Your task to perform on an android device: open the mobile data screen to see how much data has been used Image 0: 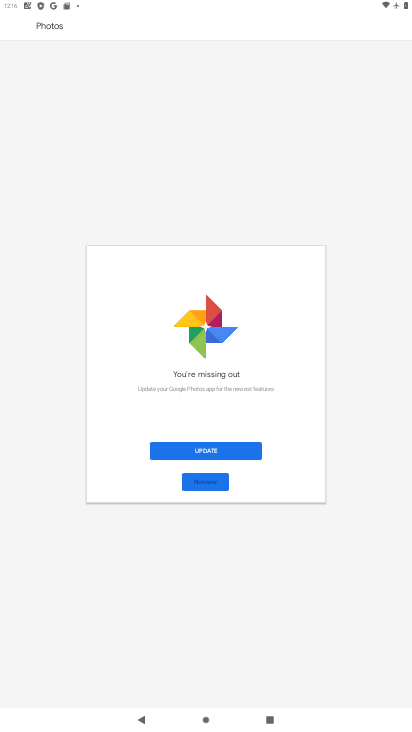
Step 0: press home button
Your task to perform on an android device: open the mobile data screen to see how much data has been used Image 1: 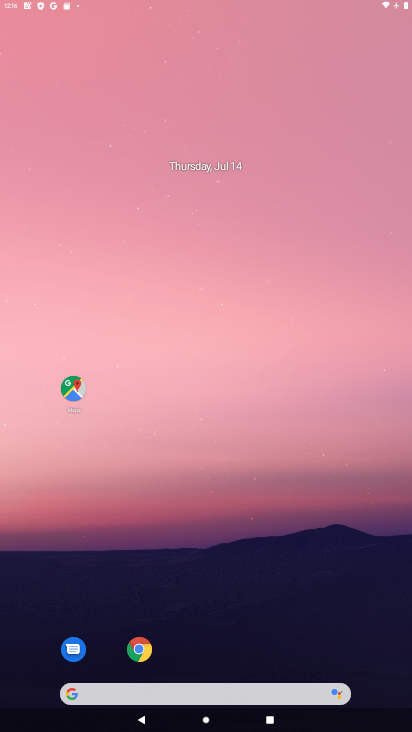
Step 1: drag from (224, 650) to (244, 247)
Your task to perform on an android device: open the mobile data screen to see how much data has been used Image 2: 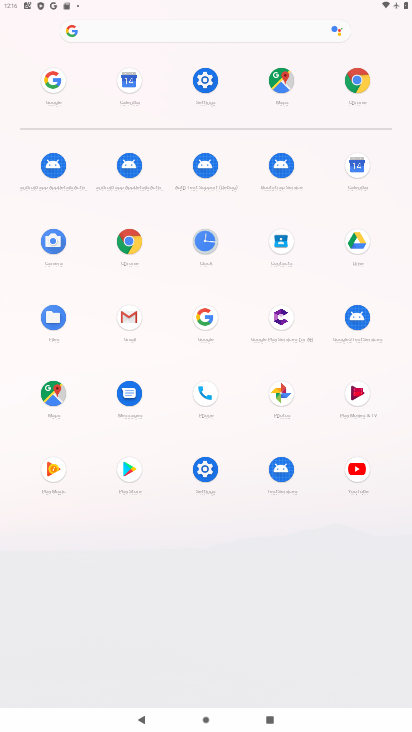
Step 2: click (211, 73)
Your task to perform on an android device: open the mobile data screen to see how much data has been used Image 3: 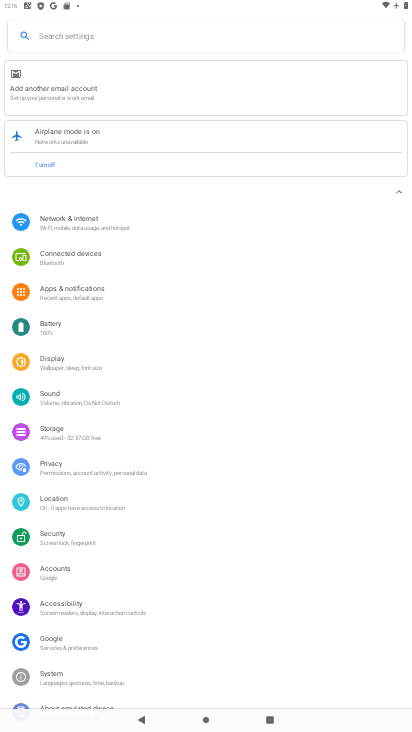
Step 3: click (85, 217)
Your task to perform on an android device: open the mobile data screen to see how much data has been used Image 4: 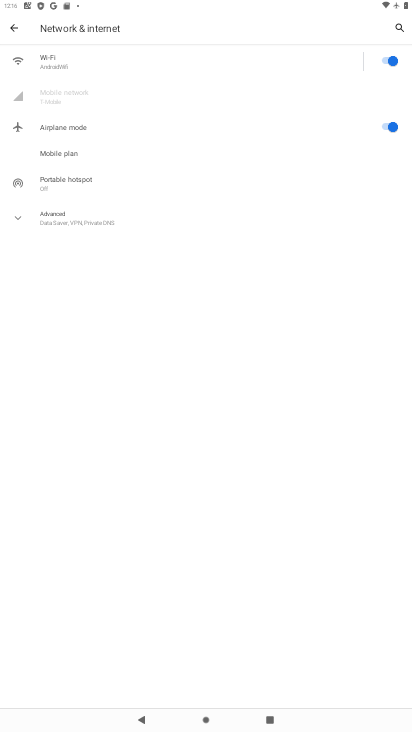
Step 4: click (67, 102)
Your task to perform on an android device: open the mobile data screen to see how much data has been used Image 5: 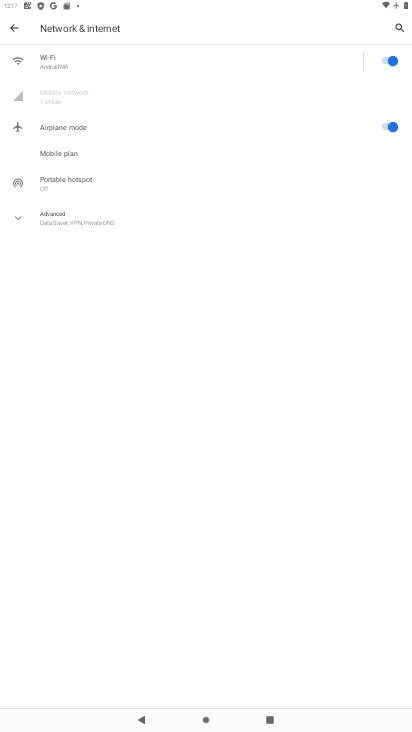
Step 5: task complete